Your task to perform on an android device: toggle improve location accuracy Image 0: 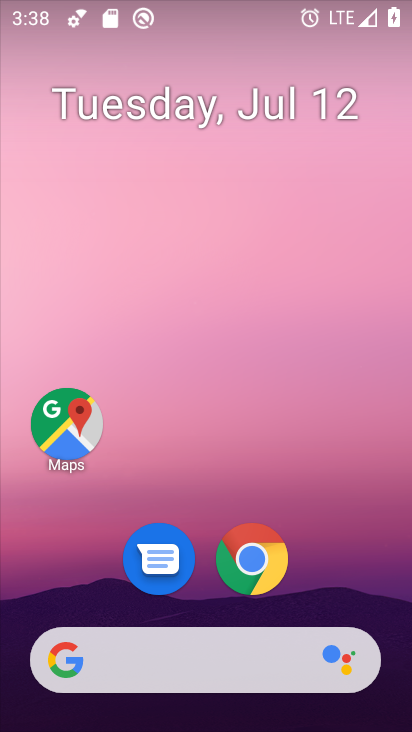
Step 0: drag from (351, 566) to (357, 129)
Your task to perform on an android device: toggle improve location accuracy Image 1: 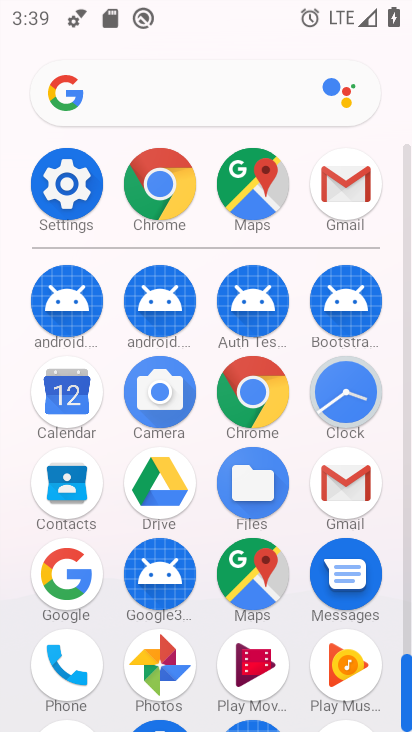
Step 1: click (75, 202)
Your task to perform on an android device: toggle improve location accuracy Image 2: 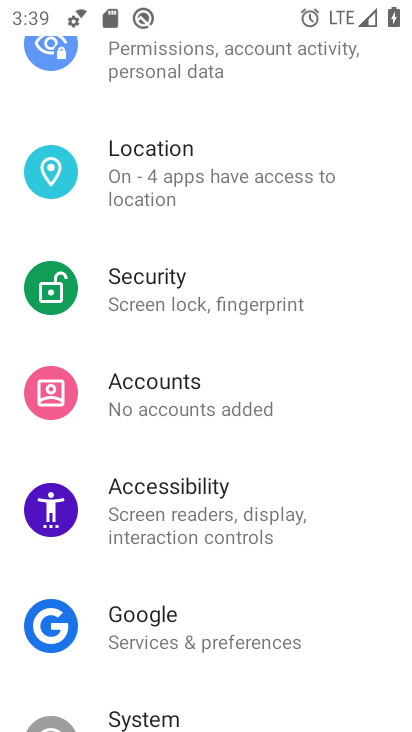
Step 2: drag from (316, 225) to (332, 334)
Your task to perform on an android device: toggle improve location accuracy Image 3: 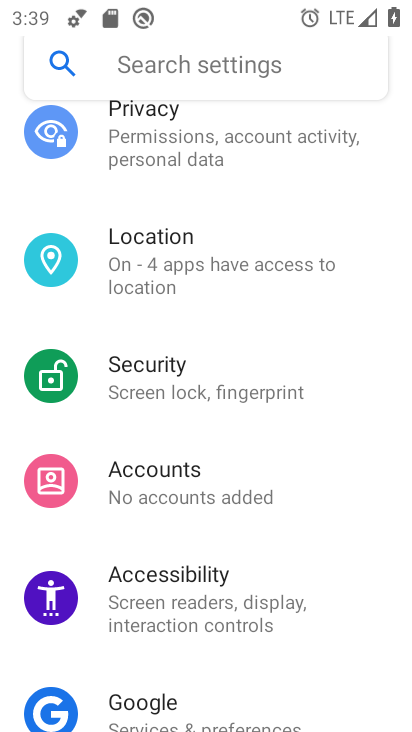
Step 3: drag from (366, 182) to (362, 265)
Your task to perform on an android device: toggle improve location accuracy Image 4: 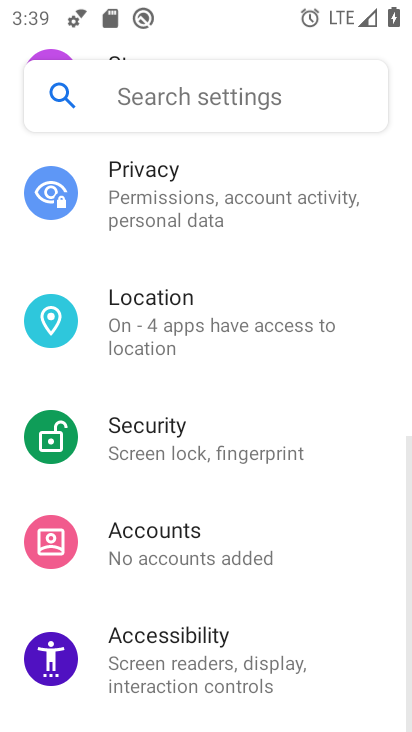
Step 4: click (336, 312)
Your task to perform on an android device: toggle improve location accuracy Image 5: 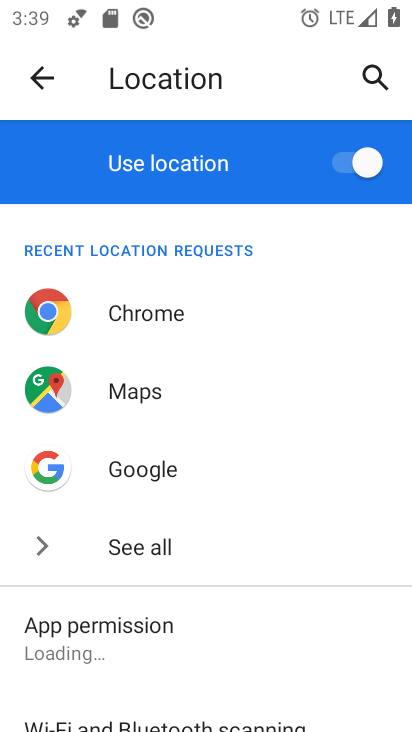
Step 5: drag from (341, 392) to (336, 292)
Your task to perform on an android device: toggle improve location accuracy Image 6: 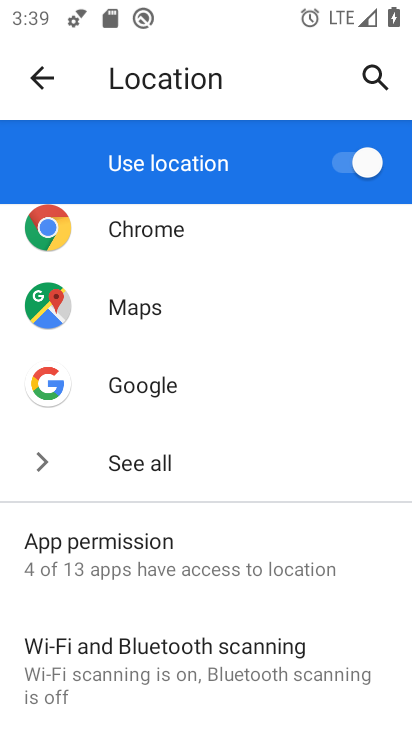
Step 6: drag from (329, 405) to (324, 308)
Your task to perform on an android device: toggle improve location accuracy Image 7: 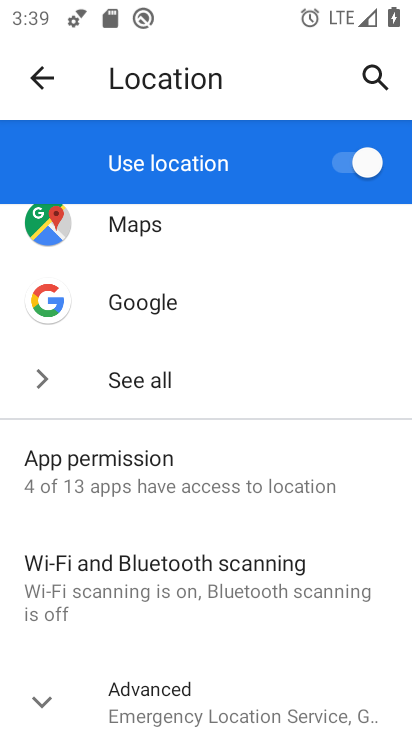
Step 7: drag from (321, 426) to (320, 325)
Your task to perform on an android device: toggle improve location accuracy Image 8: 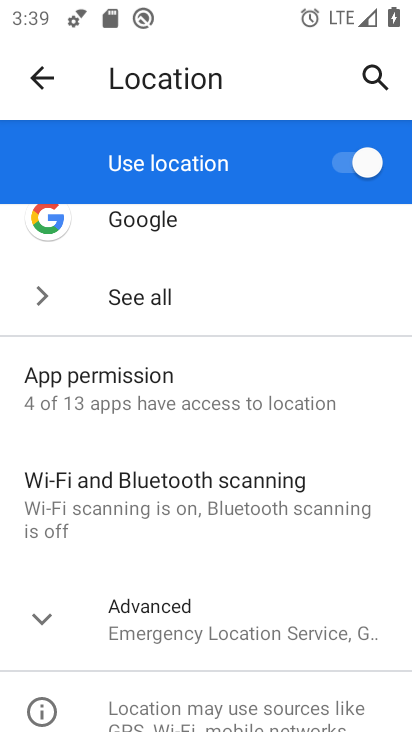
Step 8: drag from (318, 533) to (322, 358)
Your task to perform on an android device: toggle improve location accuracy Image 9: 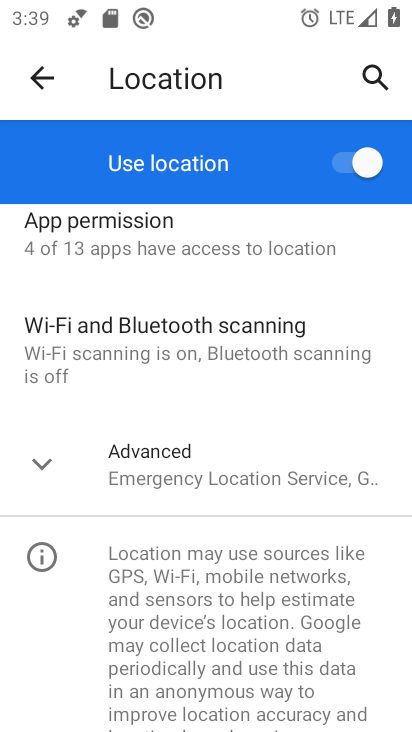
Step 9: drag from (335, 294) to (317, 471)
Your task to perform on an android device: toggle improve location accuracy Image 10: 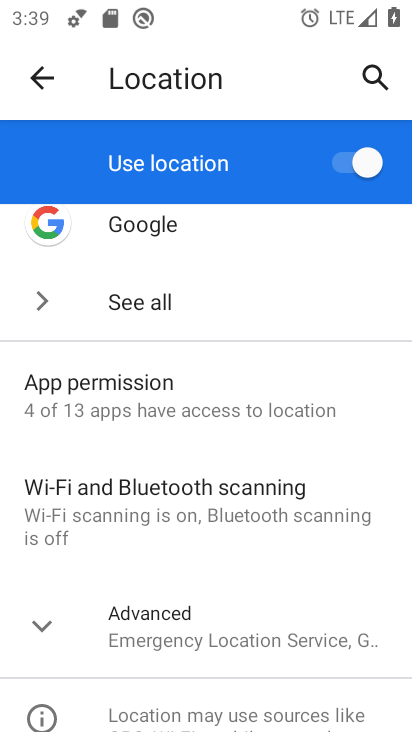
Step 10: drag from (314, 547) to (325, 401)
Your task to perform on an android device: toggle improve location accuracy Image 11: 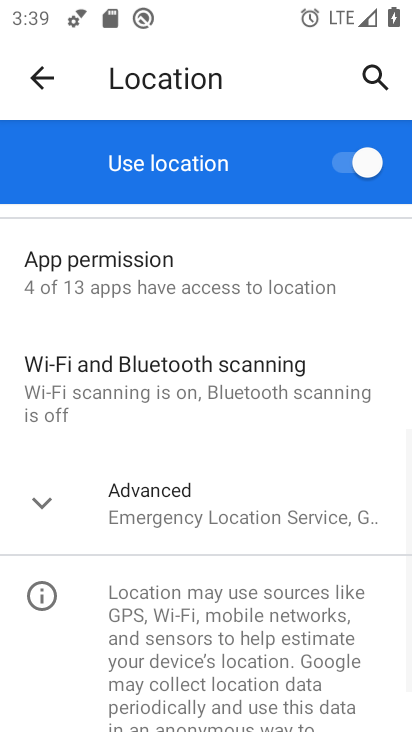
Step 11: click (316, 512)
Your task to perform on an android device: toggle improve location accuracy Image 12: 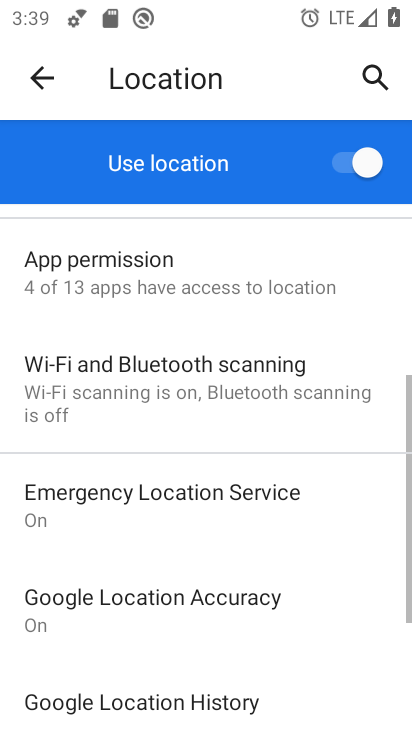
Step 12: drag from (306, 558) to (316, 470)
Your task to perform on an android device: toggle improve location accuracy Image 13: 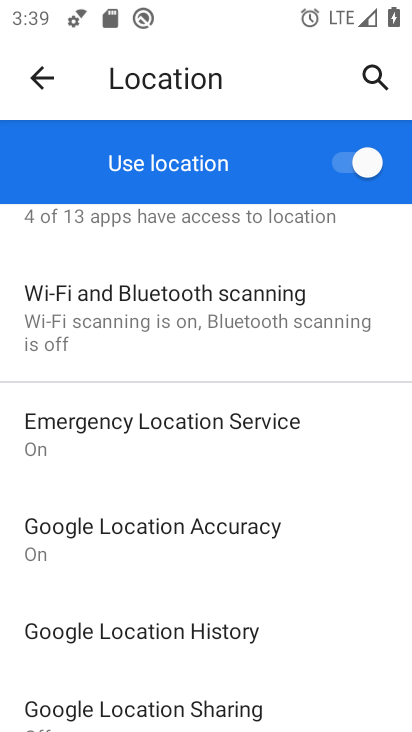
Step 13: click (270, 521)
Your task to perform on an android device: toggle improve location accuracy Image 14: 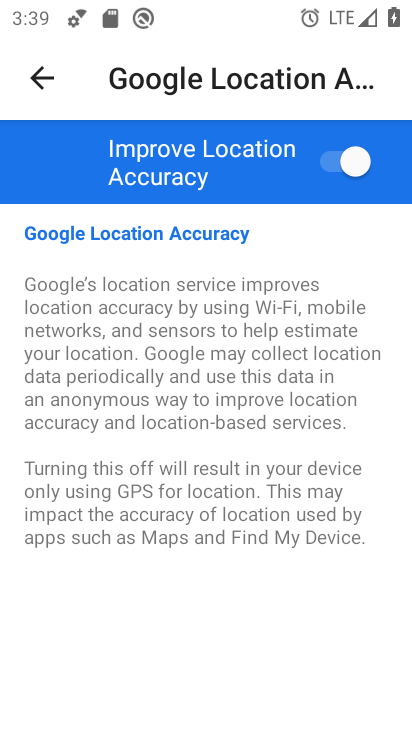
Step 14: click (350, 181)
Your task to perform on an android device: toggle improve location accuracy Image 15: 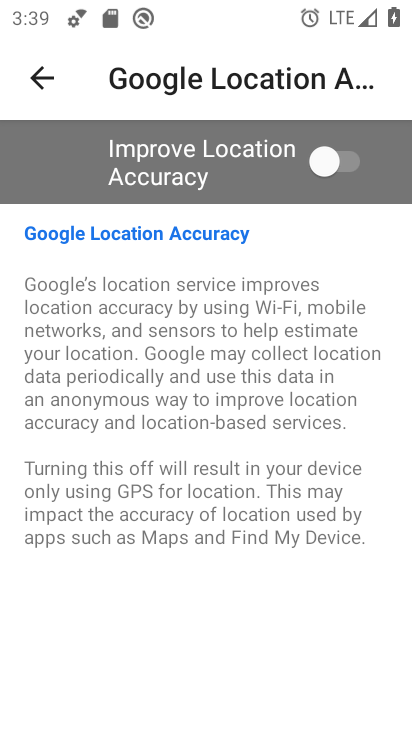
Step 15: task complete